Your task to perform on an android device: change the clock display to digital Image 0: 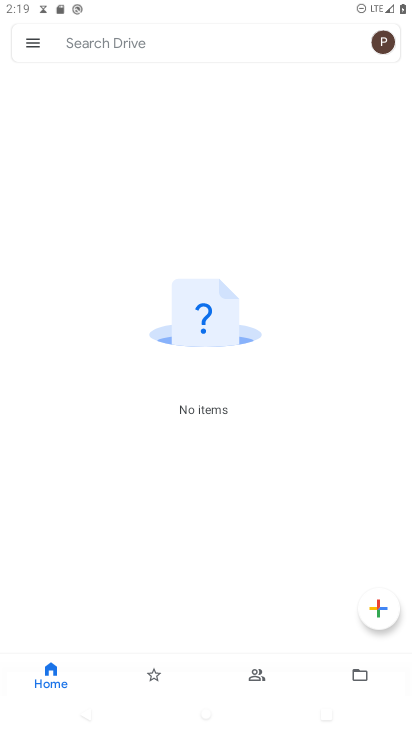
Step 0: press home button
Your task to perform on an android device: change the clock display to digital Image 1: 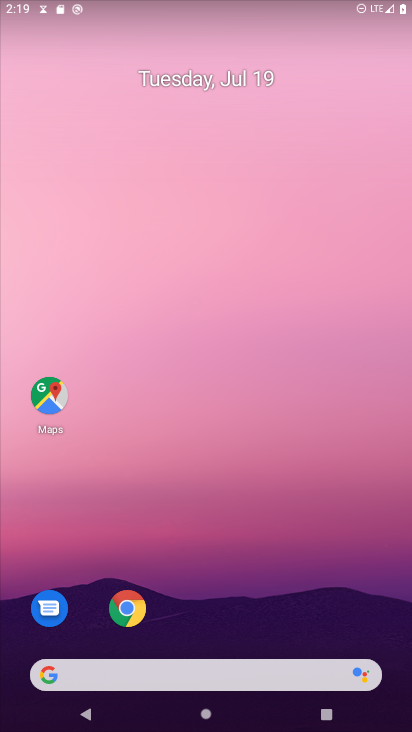
Step 1: drag from (279, 667) to (241, 57)
Your task to perform on an android device: change the clock display to digital Image 2: 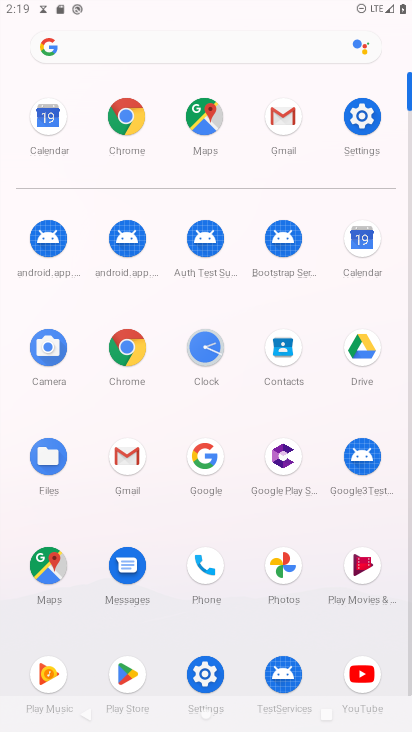
Step 2: click (199, 346)
Your task to perform on an android device: change the clock display to digital Image 3: 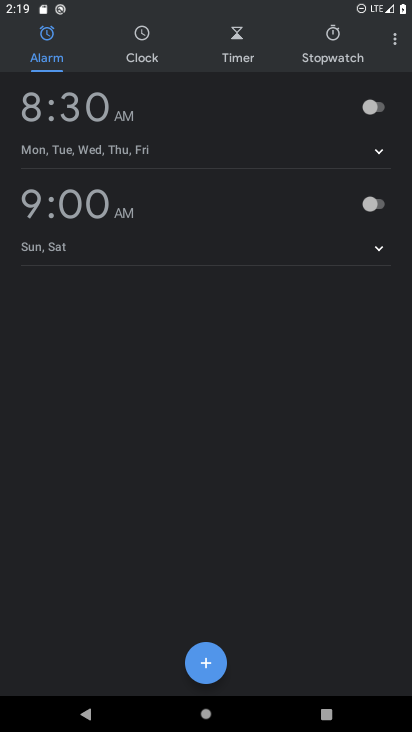
Step 3: click (144, 38)
Your task to perform on an android device: change the clock display to digital Image 4: 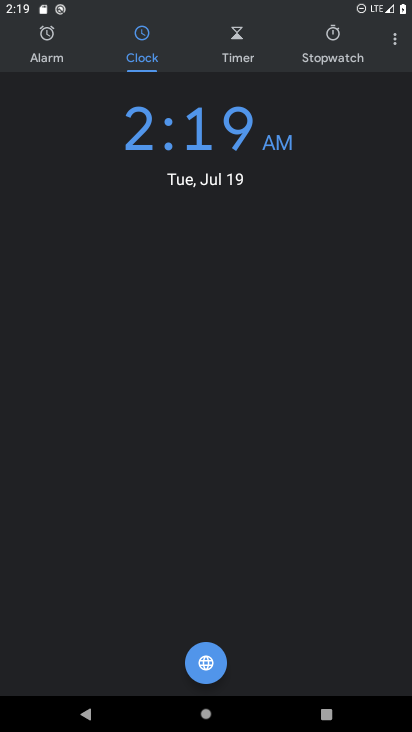
Step 4: click (393, 31)
Your task to perform on an android device: change the clock display to digital Image 5: 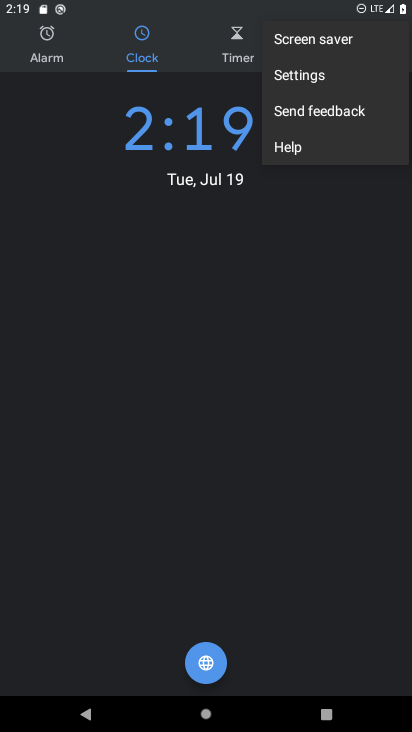
Step 5: click (319, 76)
Your task to perform on an android device: change the clock display to digital Image 6: 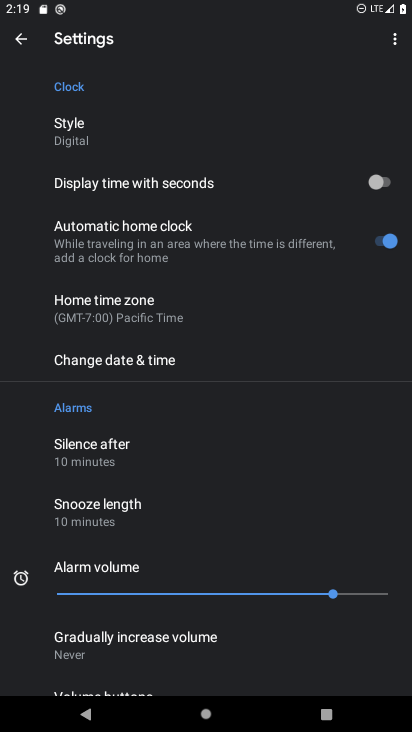
Step 6: task complete